Your task to perform on an android device: stop showing notifications on the lock screen Image 0: 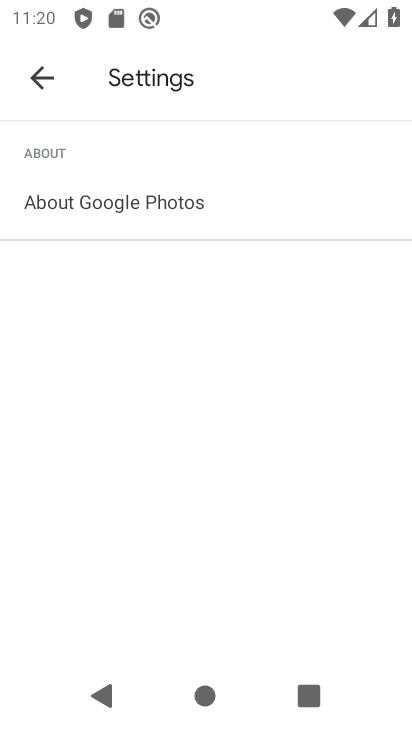
Step 0: press home button
Your task to perform on an android device: stop showing notifications on the lock screen Image 1: 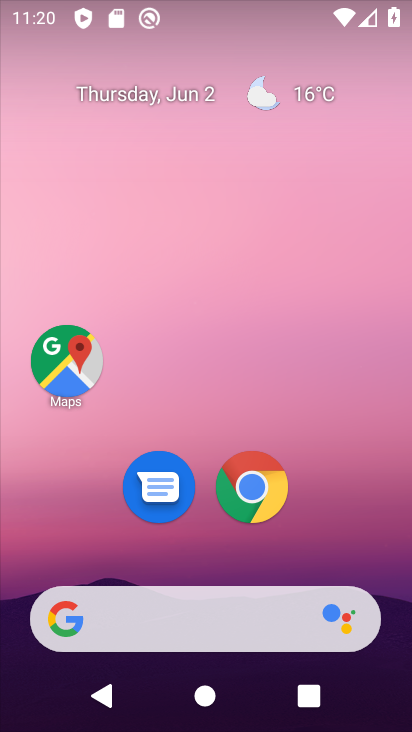
Step 1: drag from (316, 465) to (259, 130)
Your task to perform on an android device: stop showing notifications on the lock screen Image 2: 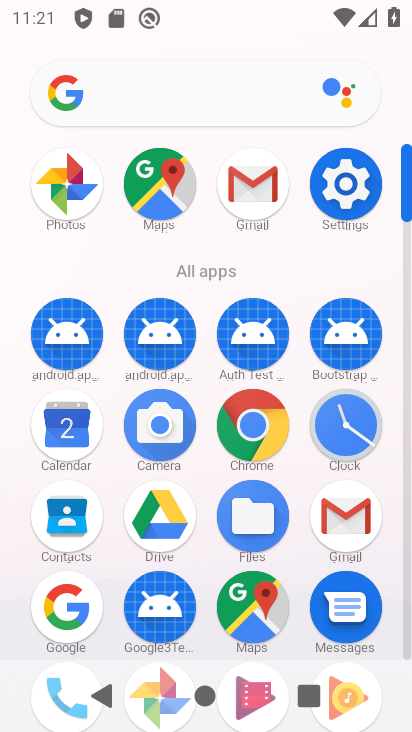
Step 2: click (340, 185)
Your task to perform on an android device: stop showing notifications on the lock screen Image 3: 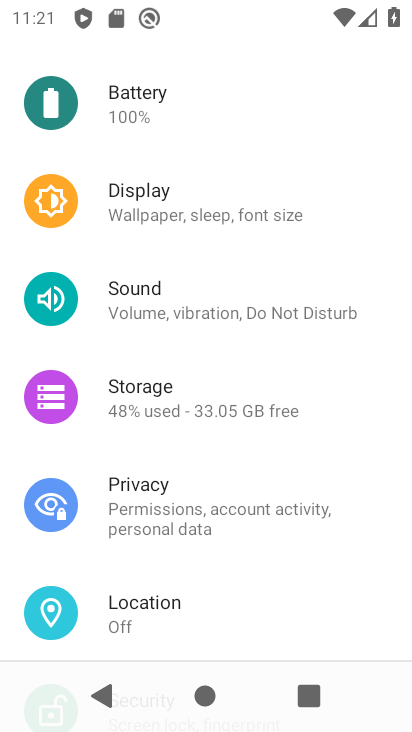
Step 3: drag from (322, 594) to (409, 653)
Your task to perform on an android device: stop showing notifications on the lock screen Image 4: 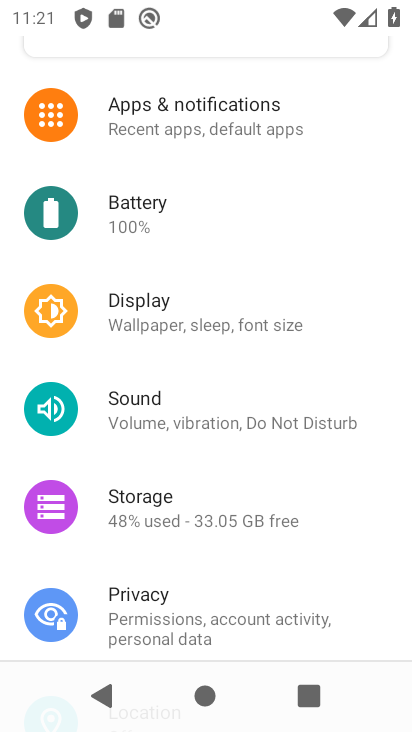
Step 4: drag from (217, 211) to (272, 397)
Your task to perform on an android device: stop showing notifications on the lock screen Image 5: 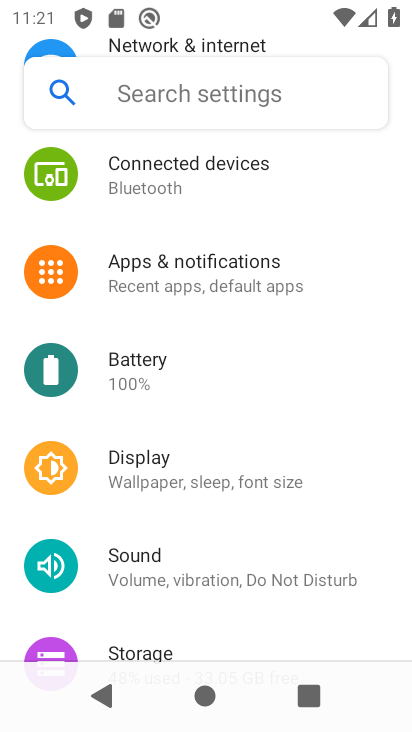
Step 5: click (243, 286)
Your task to perform on an android device: stop showing notifications on the lock screen Image 6: 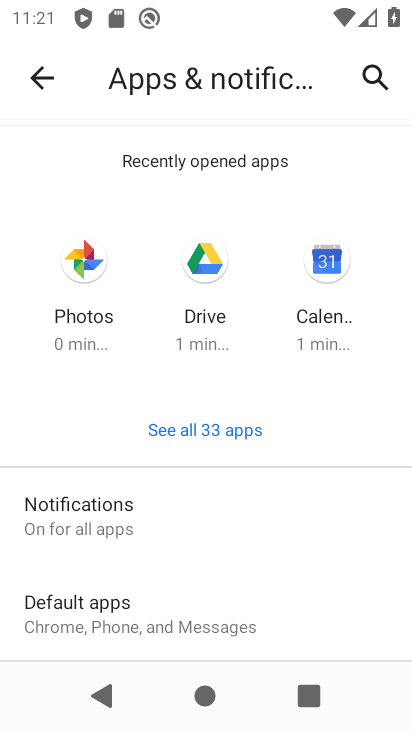
Step 6: click (119, 518)
Your task to perform on an android device: stop showing notifications on the lock screen Image 7: 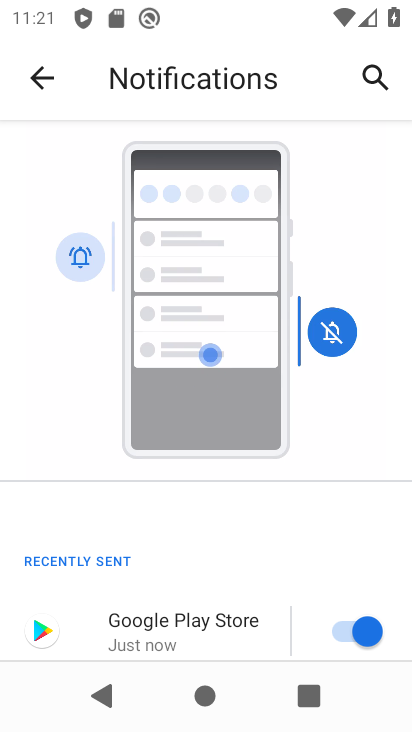
Step 7: drag from (247, 541) to (137, 31)
Your task to perform on an android device: stop showing notifications on the lock screen Image 8: 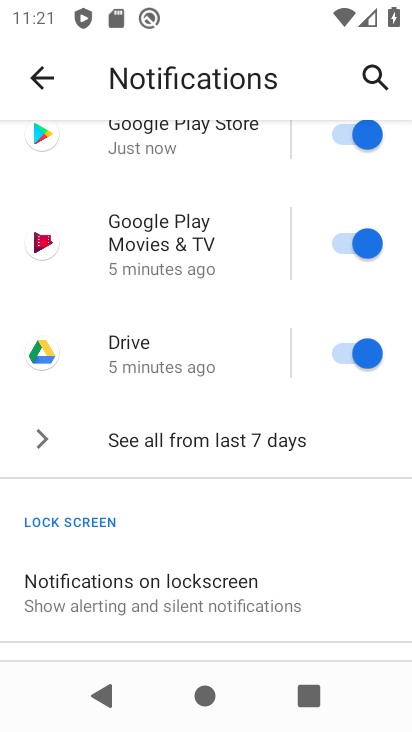
Step 8: click (113, 601)
Your task to perform on an android device: stop showing notifications on the lock screen Image 9: 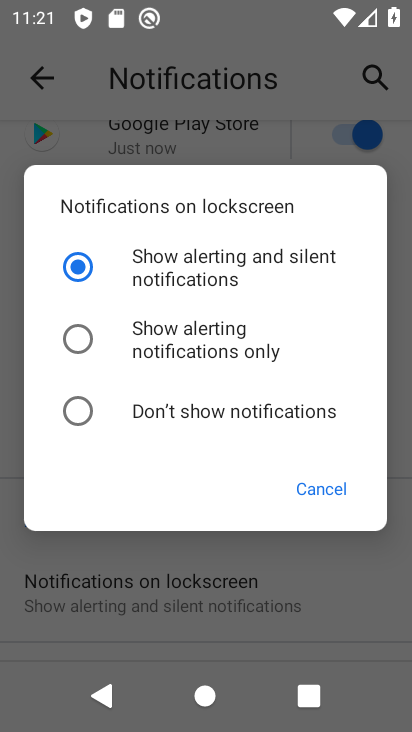
Step 9: click (85, 415)
Your task to perform on an android device: stop showing notifications on the lock screen Image 10: 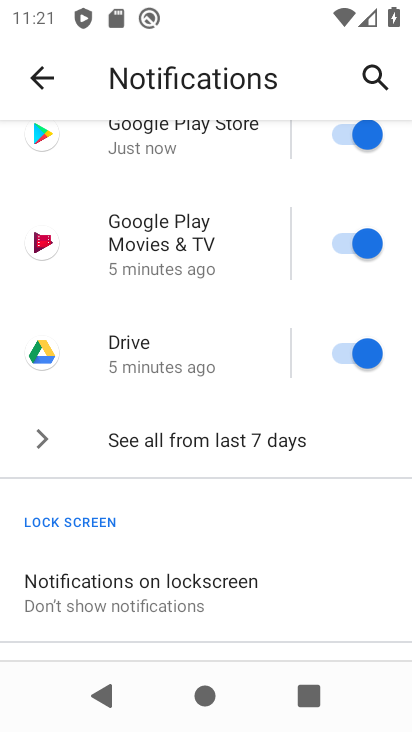
Step 10: task complete